Your task to perform on an android device: Search for "razer deathadder" on ebay, select the first entry, and add it to the cart. Image 0: 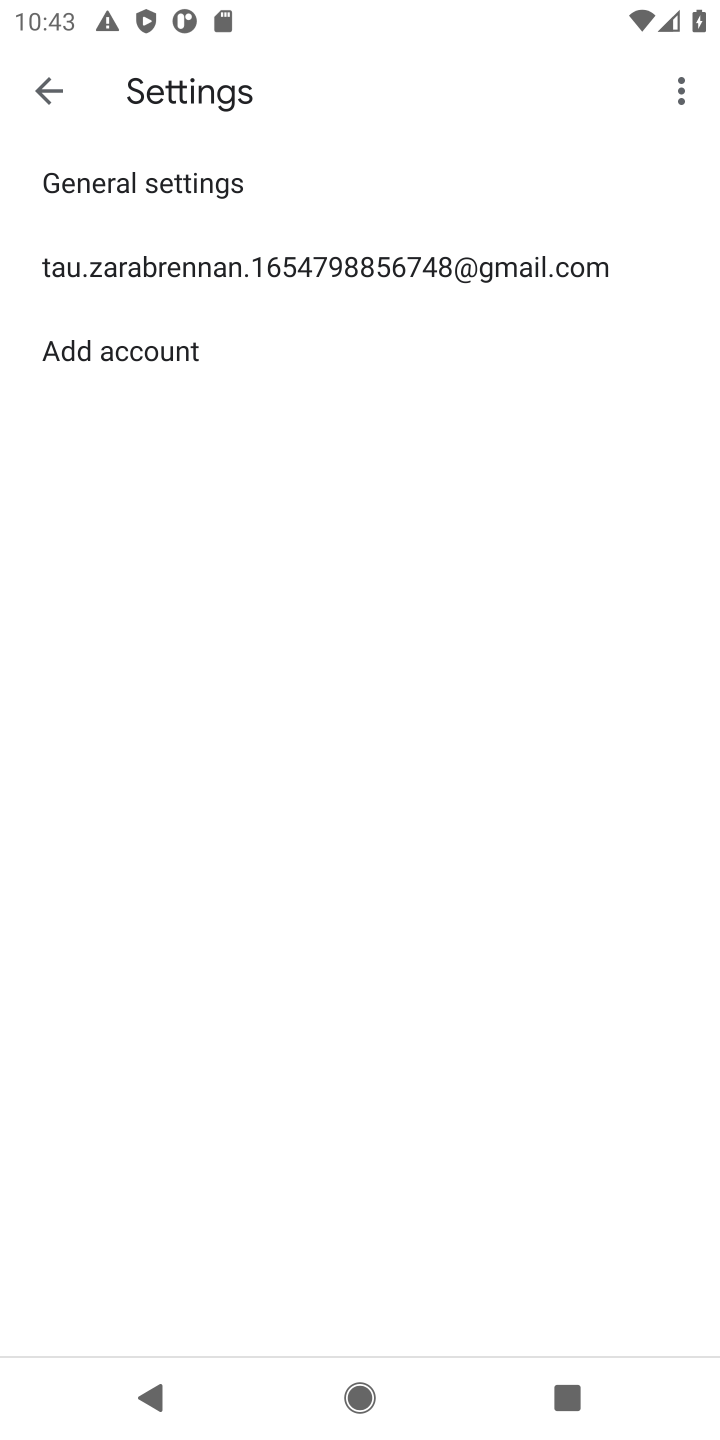
Step 0: press home button
Your task to perform on an android device: Search for "razer deathadder" on ebay, select the first entry, and add it to the cart. Image 1: 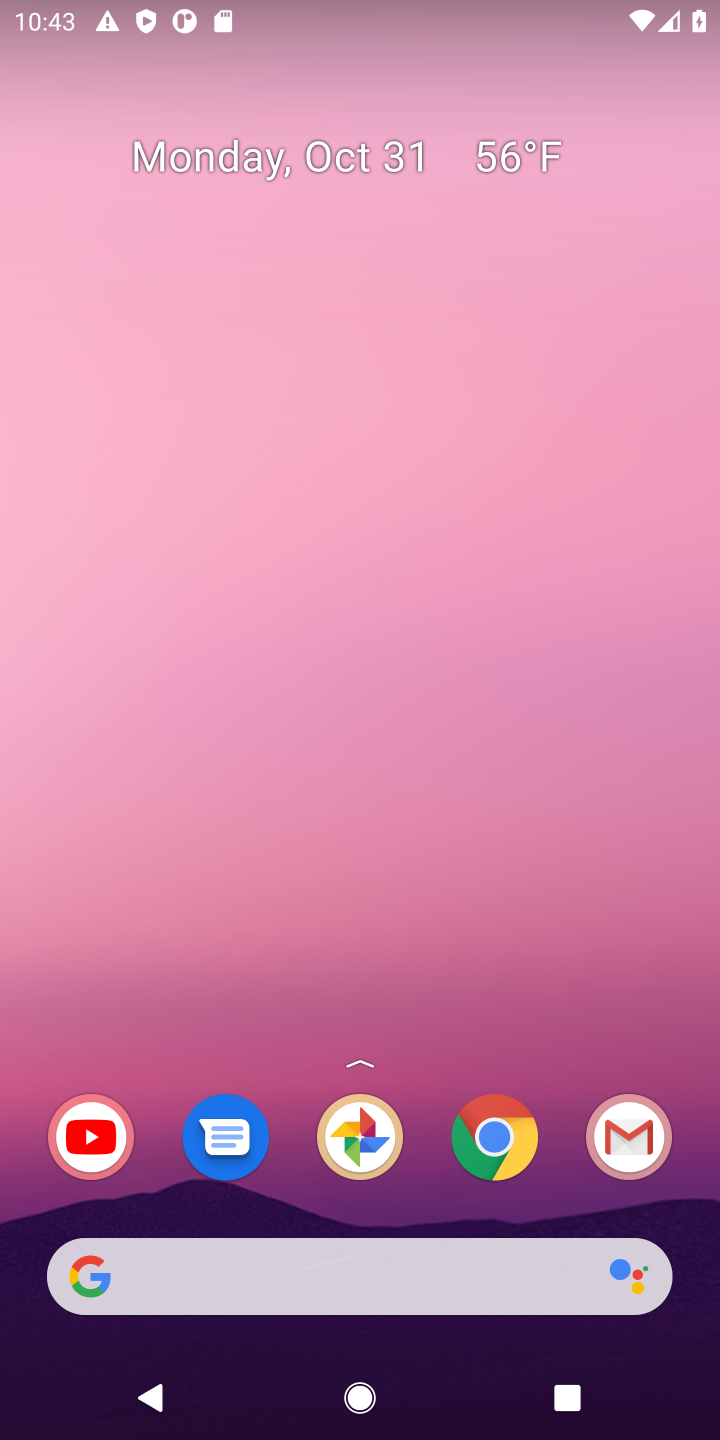
Step 1: click (500, 1135)
Your task to perform on an android device: Search for "razer deathadder" on ebay, select the first entry, and add it to the cart. Image 2: 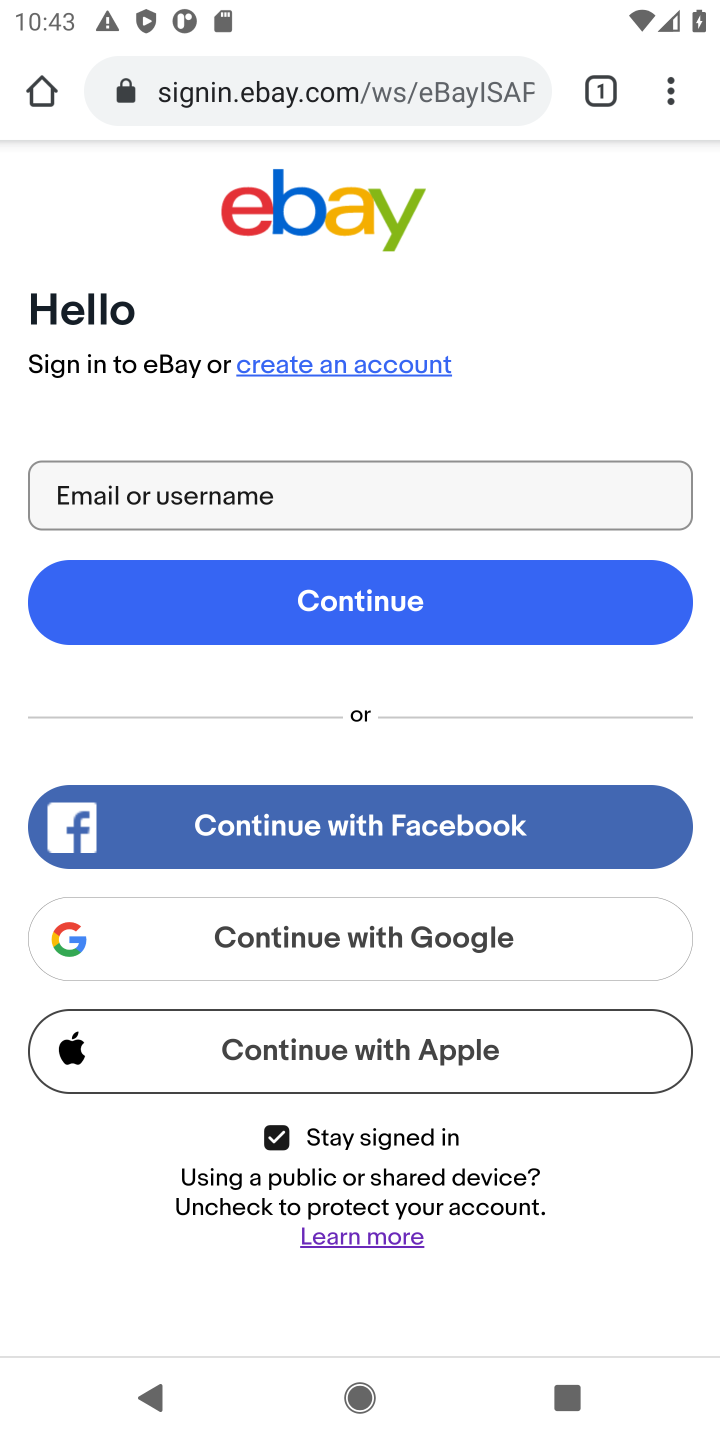
Step 2: click (413, 97)
Your task to perform on an android device: Search for "razer deathadder" on ebay, select the first entry, and add it to the cart. Image 3: 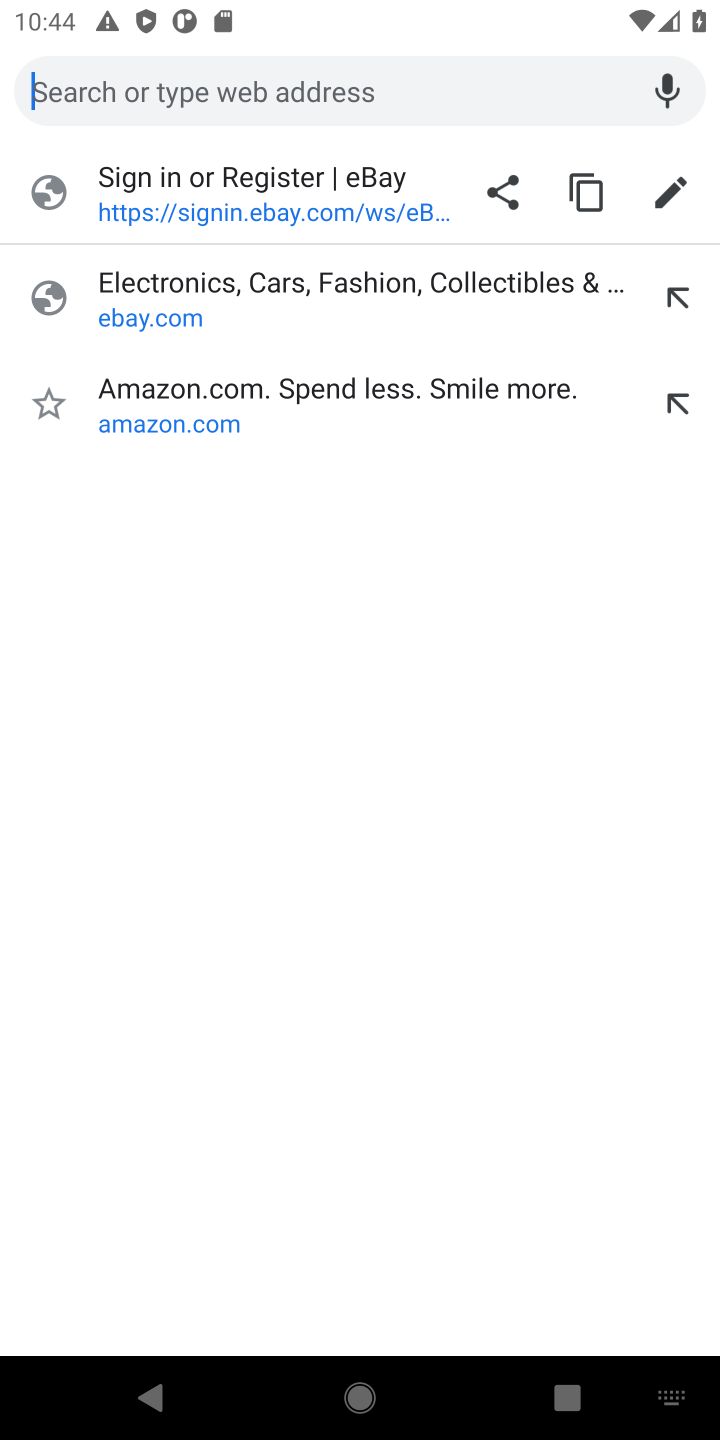
Step 3: type "ebay"
Your task to perform on an android device: Search for "razer deathadder" on ebay, select the first entry, and add it to the cart. Image 4: 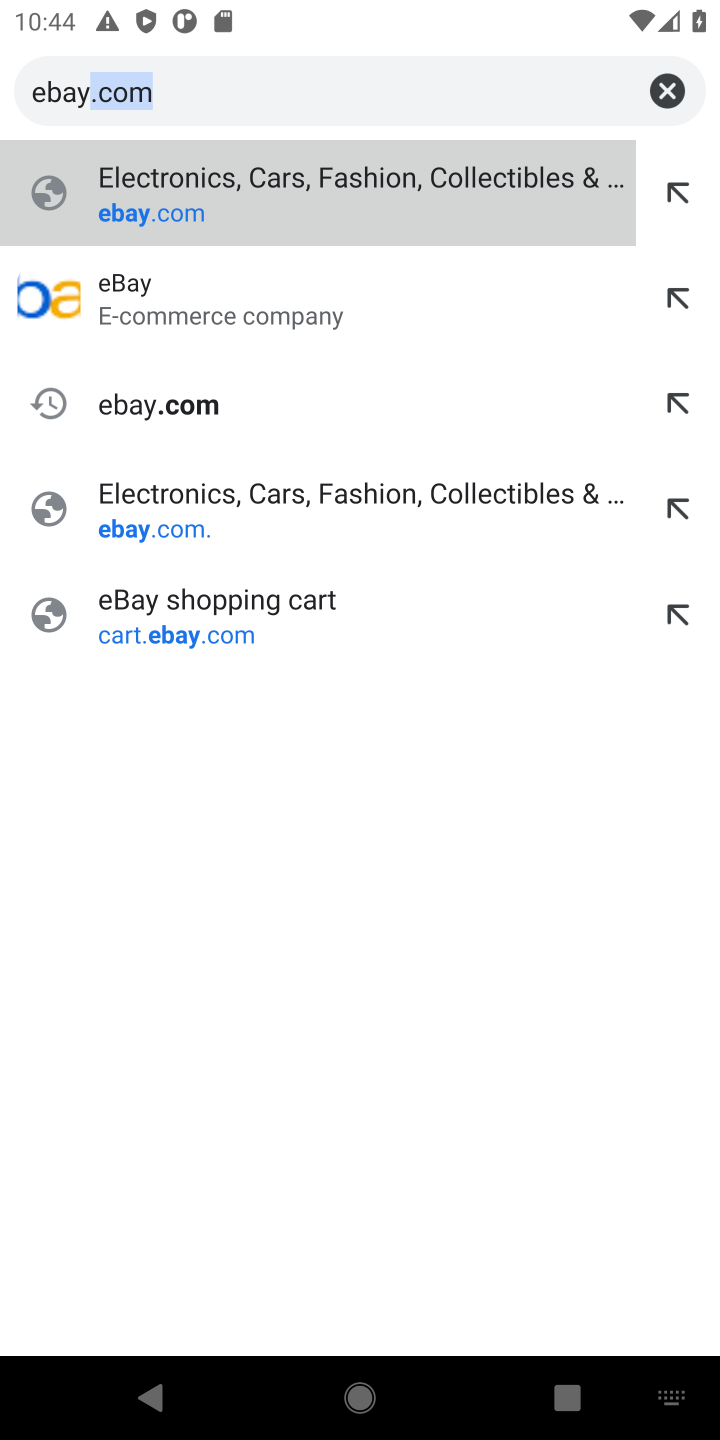
Step 4: click (176, 316)
Your task to perform on an android device: Search for "razer deathadder" on ebay, select the first entry, and add it to the cart. Image 5: 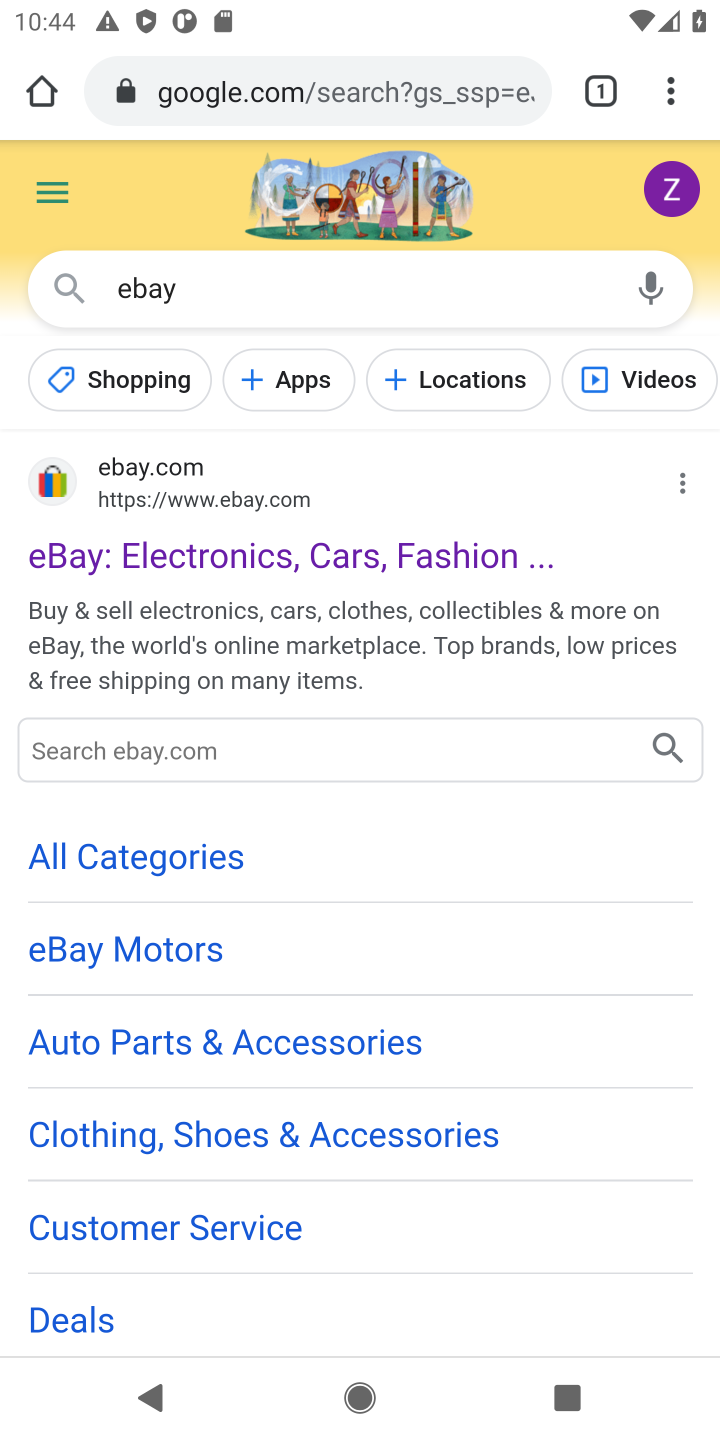
Step 5: click (257, 565)
Your task to perform on an android device: Search for "razer deathadder" on ebay, select the first entry, and add it to the cart. Image 6: 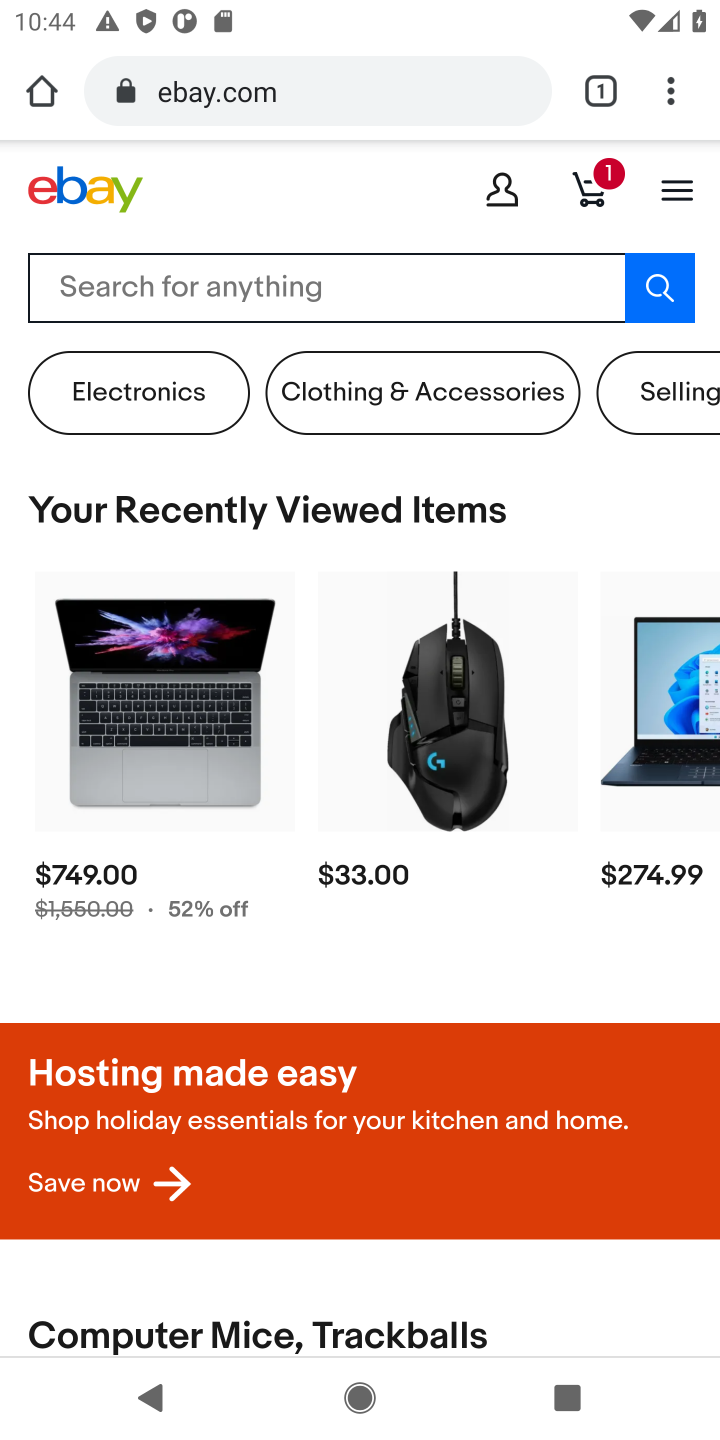
Step 6: click (345, 292)
Your task to perform on an android device: Search for "razer deathadder" on ebay, select the first entry, and add it to the cart. Image 7: 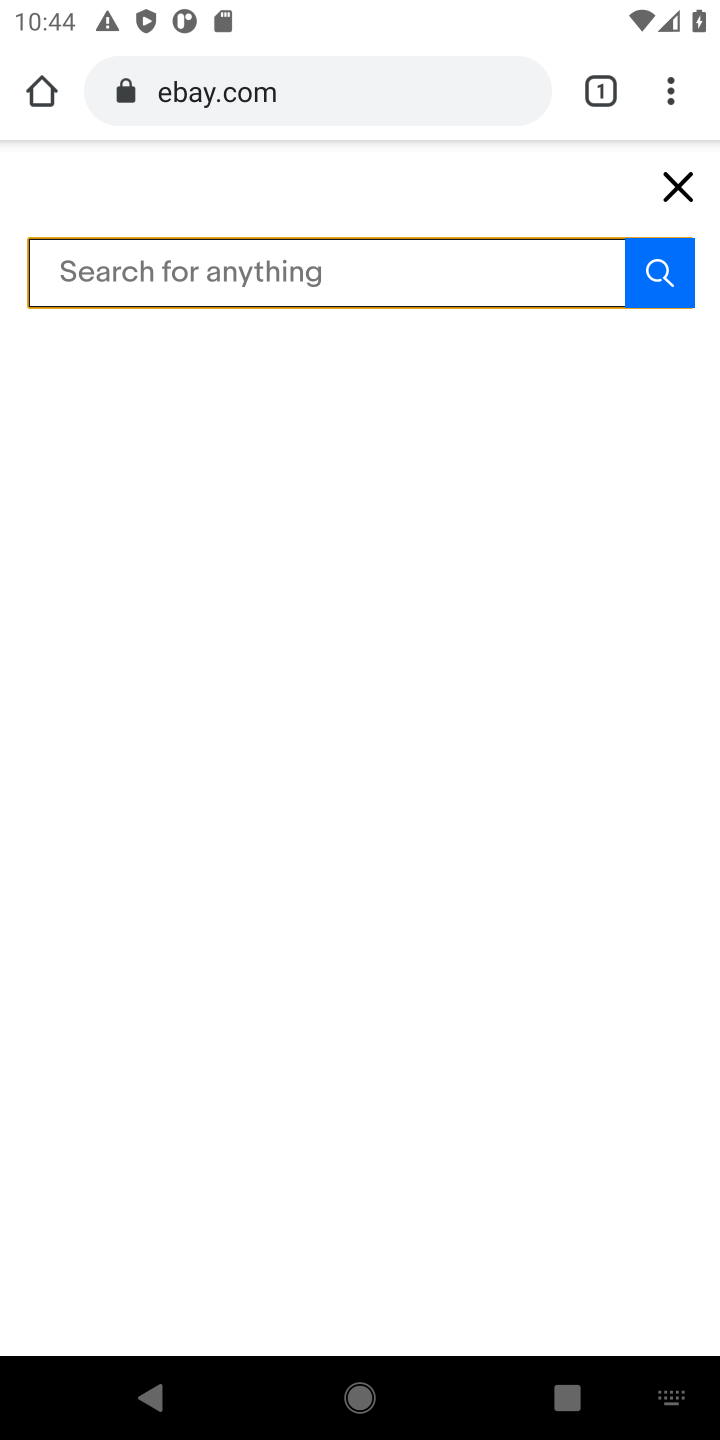
Step 7: type "razer deathadder"
Your task to perform on an android device: Search for "razer deathadder" on ebay, select the first entry, and add it to the cart. Image 8: 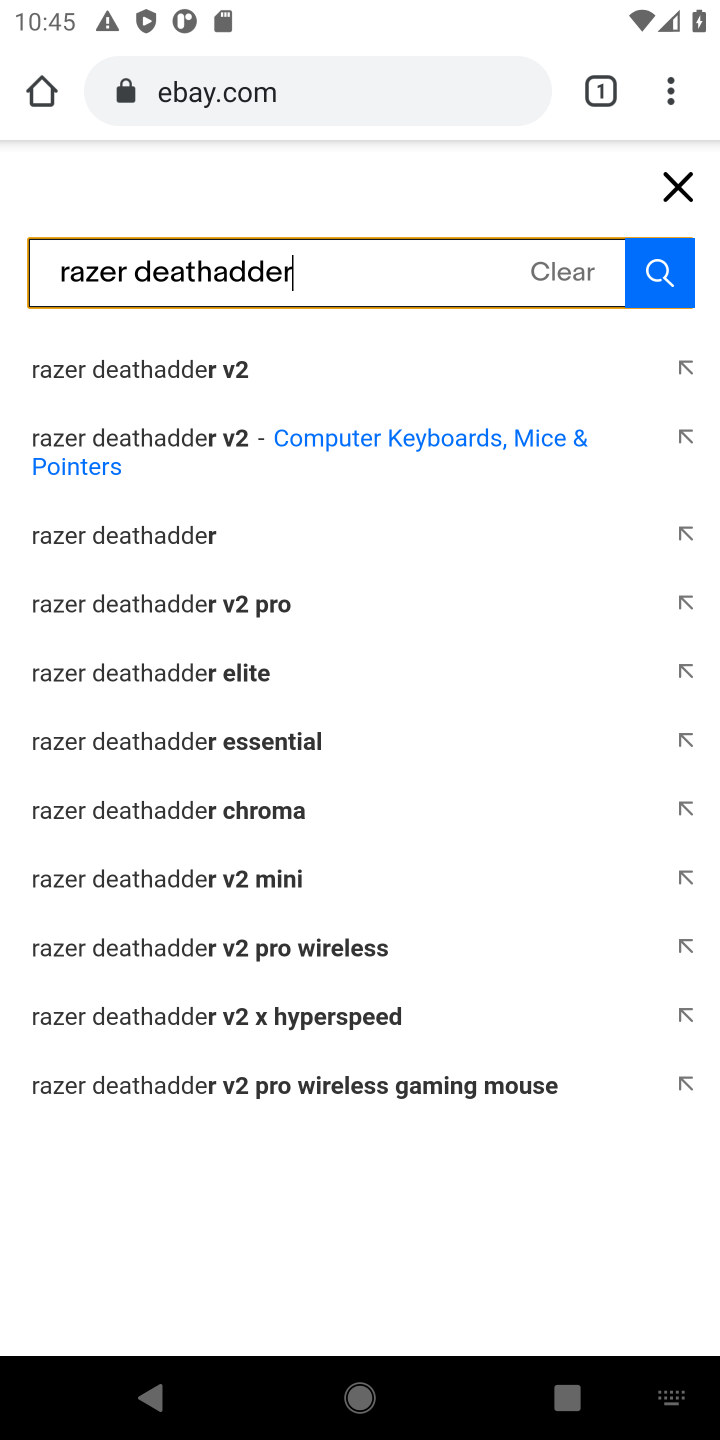
Step 8: click (663, 278)
Your task to perform on an android device: Search for "razer deathadder" on ebay, select the first entry, and add it to the cart. Image 9: 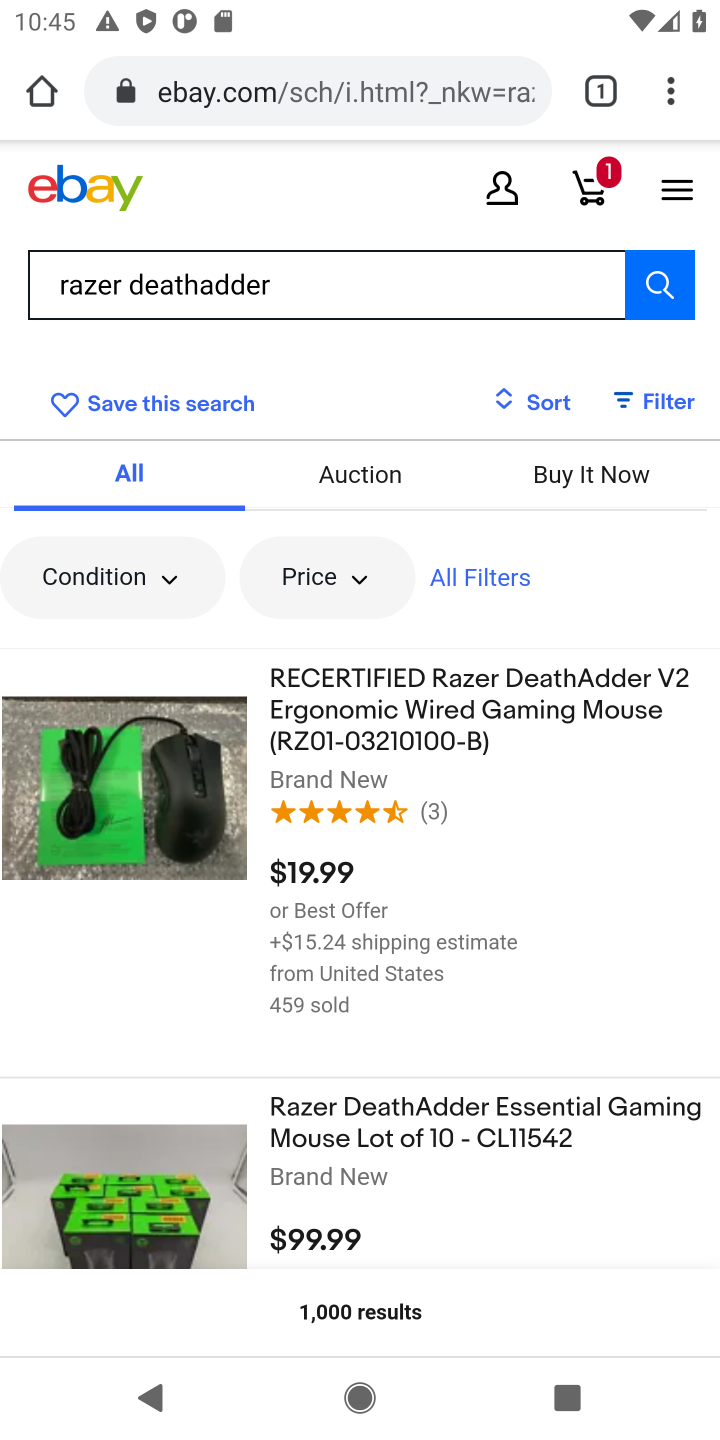
Step 9: click (395, 711)
Your task to perform on an android device: Search for "razer deathadder" on ebay, select the first entry, and add it to the cart. Image 10: 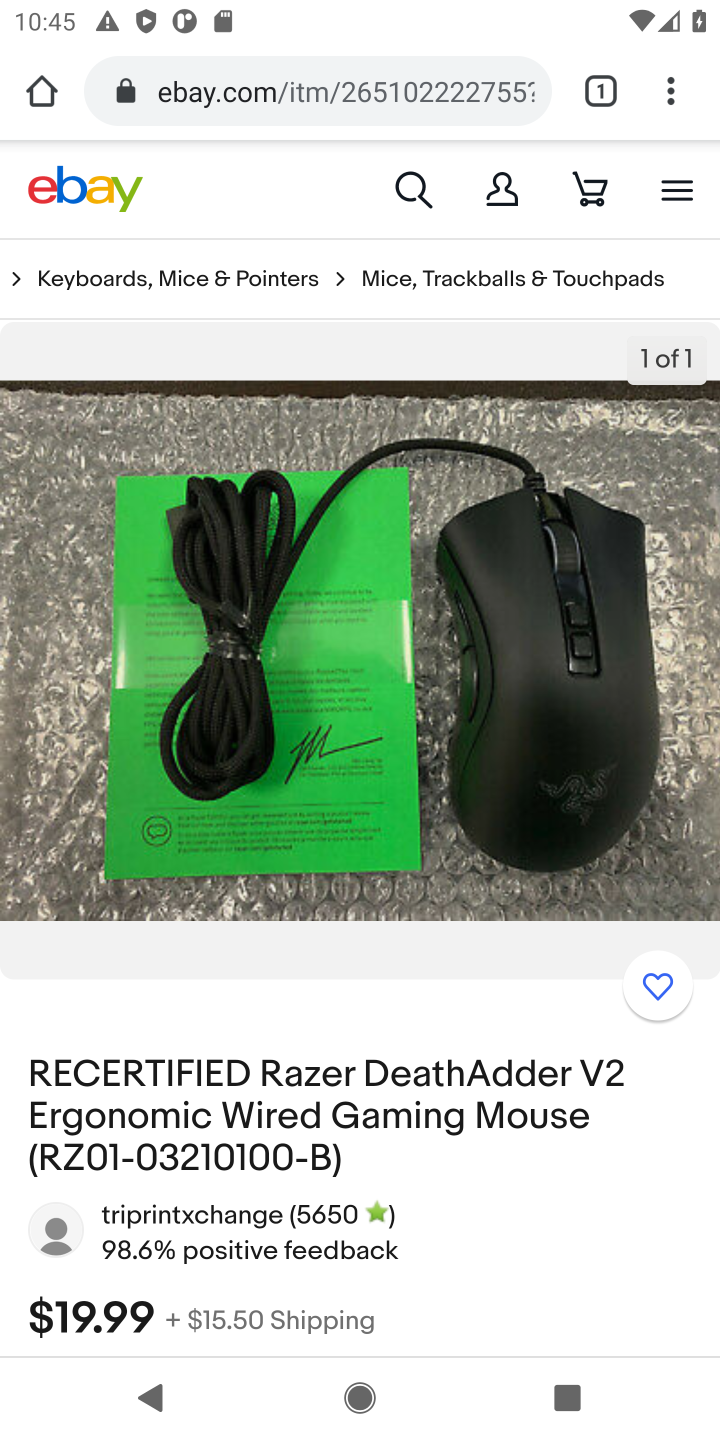
Step 10: drag from (438, 740) to (456, 451)
Your task to perform on an android device: Search for "razer deathadder" on ebay, select the first entry, and add it to the cart. Image 11: 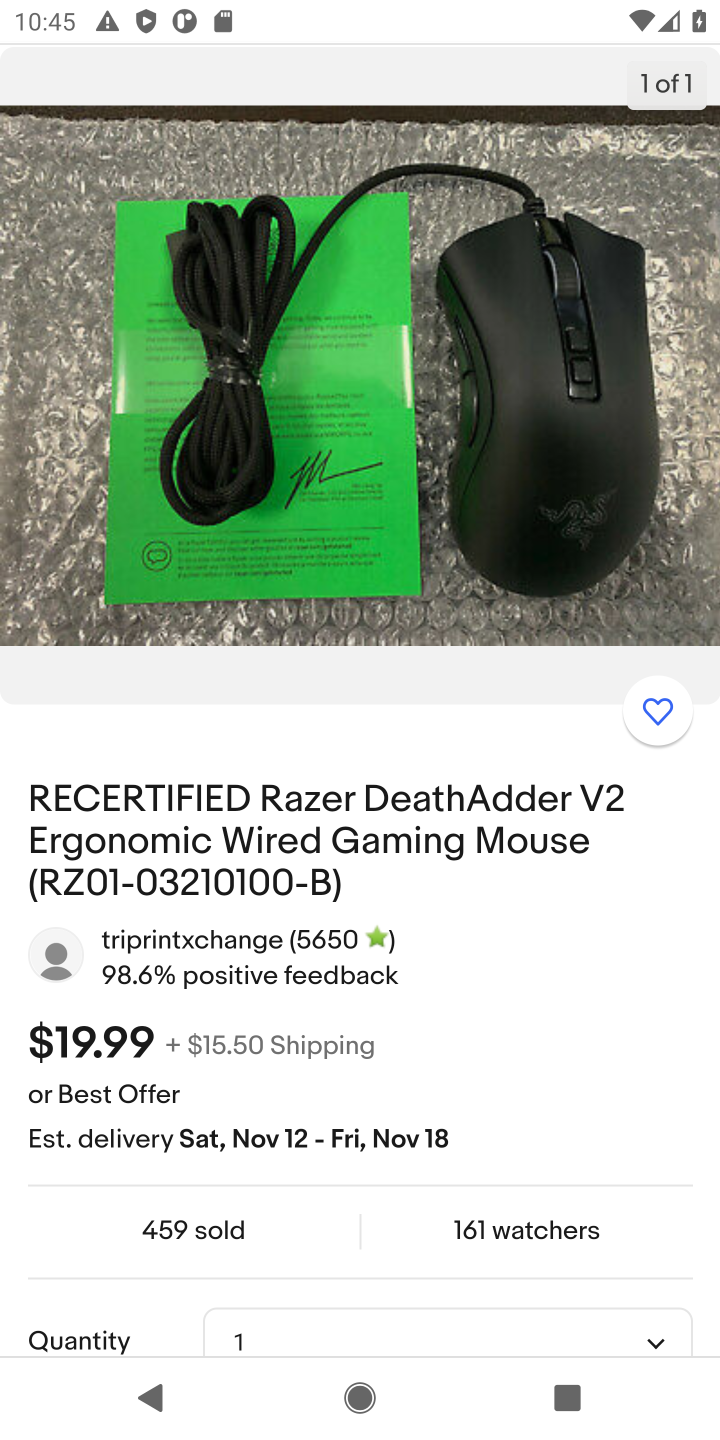
Step 11: drag from (515, 1093) to (533, 573)
Your task to perform on an android device: Search for "razer deathadder" on ebay, select the first entry, and add it to the cart. Image 12: 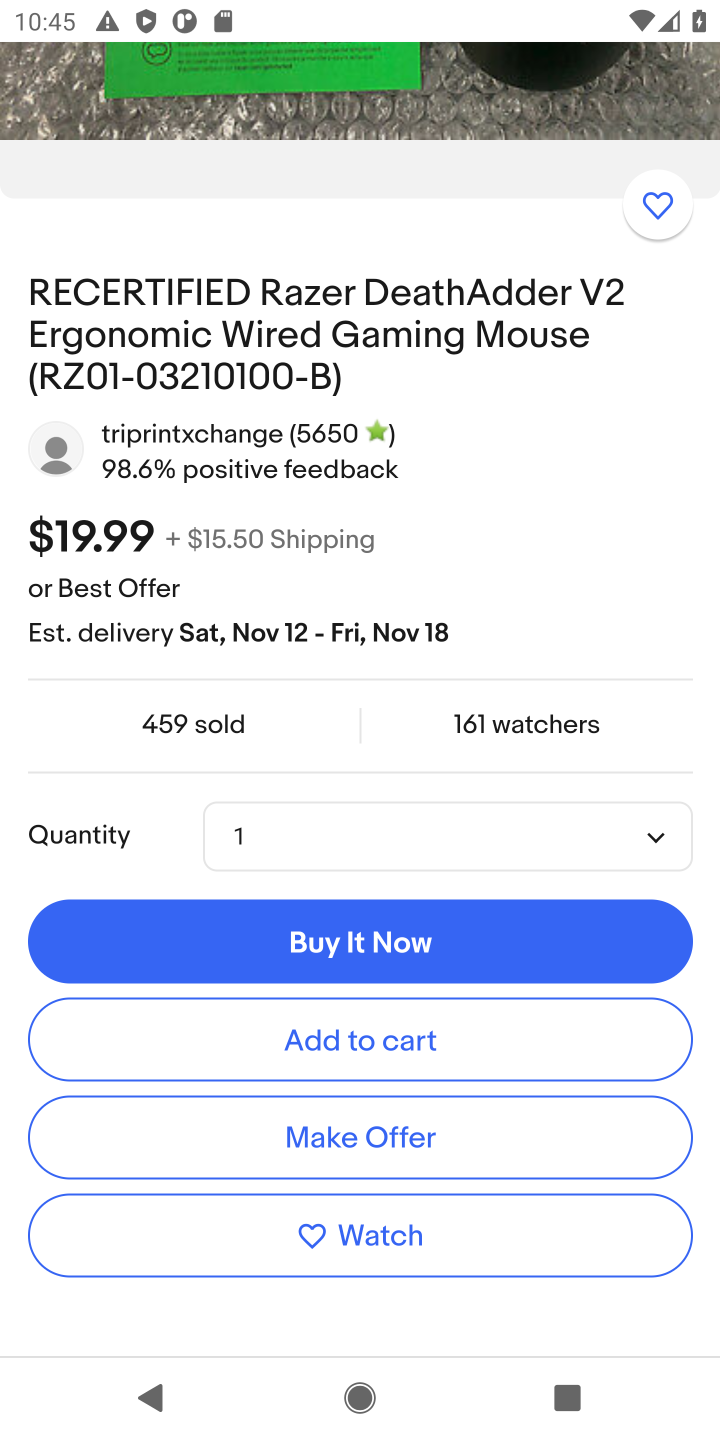
Step 12: click (401, 1029)
Your task to perform on an android device: Search for "razer deathadder" on ebay, select the first entry, and add it to the cart. Image 13: 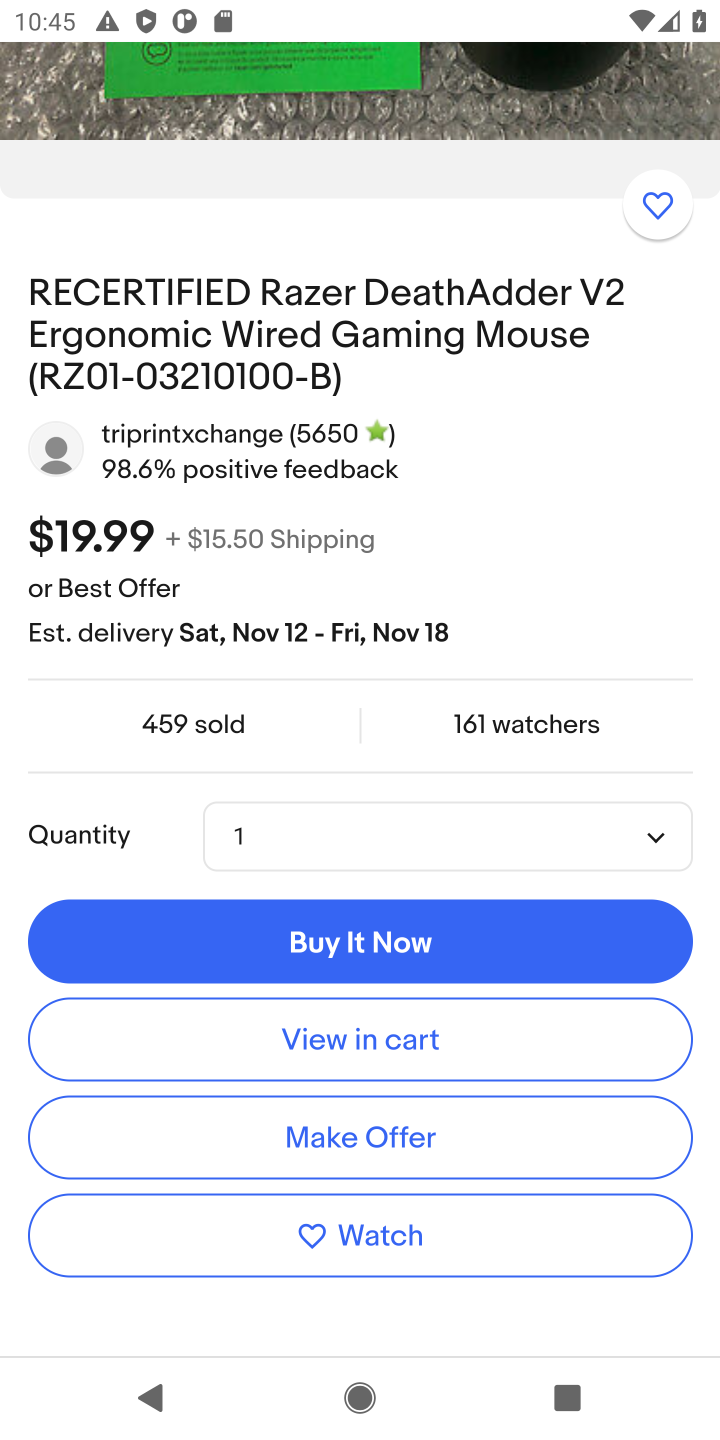
Step 13: click (401, 1029)
Your task to perform on an android device: Search for "razer deathadder" on ebay, select the first entry, and add it to the cart. Image 14: 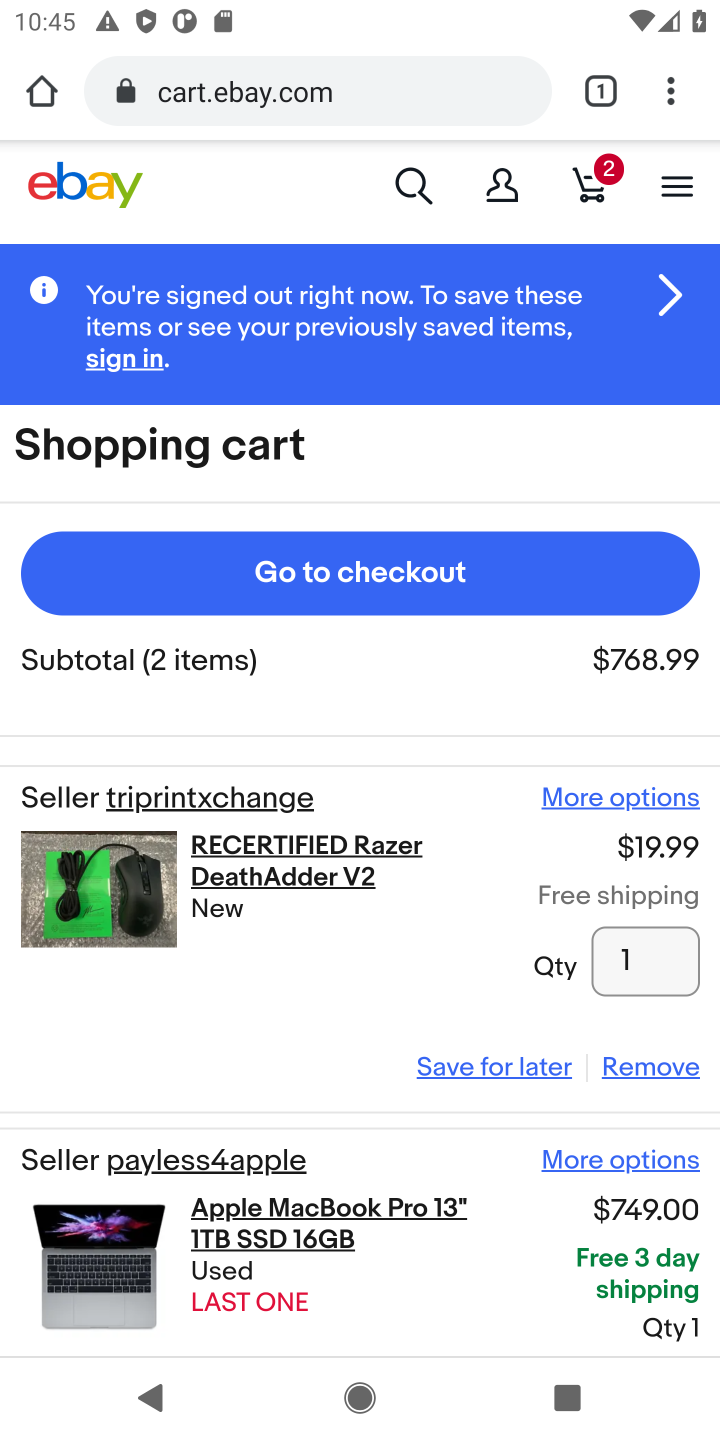
Step 14: task complete